Your task to perform on an android device: Open the phone app and click the voicemail tab. Image 0: 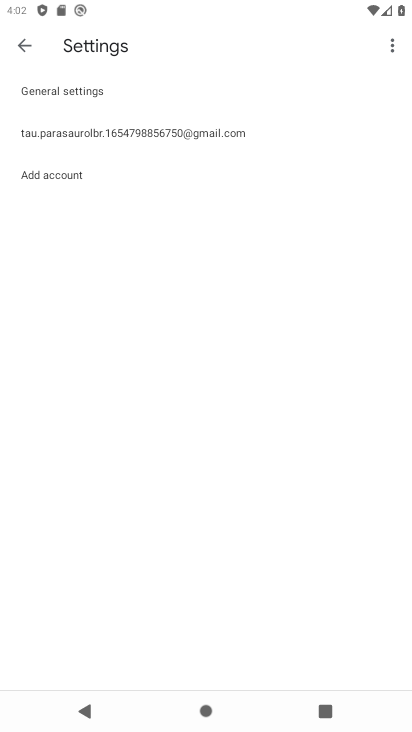
Step 0: press home button
Your task to perform on an android device: Open the phone app and click the voicemail tab. Image 1: 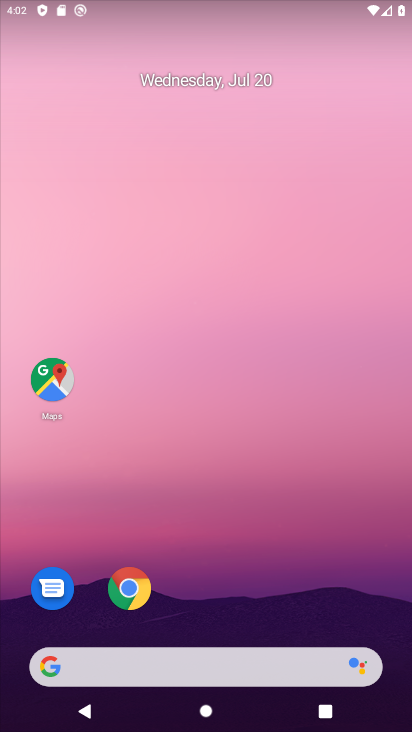
Step 1: drag from (221, 625) to (258, 83)
Your task to perform on an android device: Open the phone app and click the voicemail tab. Image 2: 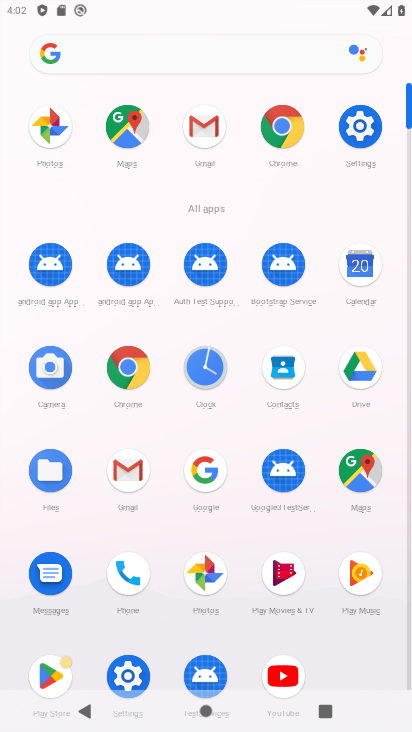
Step 2: click (119, 565)
Your task to perform on an android device: Open the phone app and click the voicemail tab. Image 3: 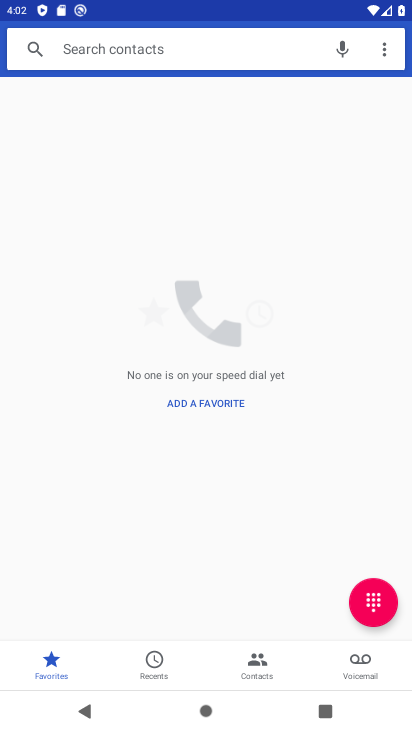
Step 3: click (367, 666)
Your task to perform on an android device: Open the phone app and click the voicemail tab. Image 4: 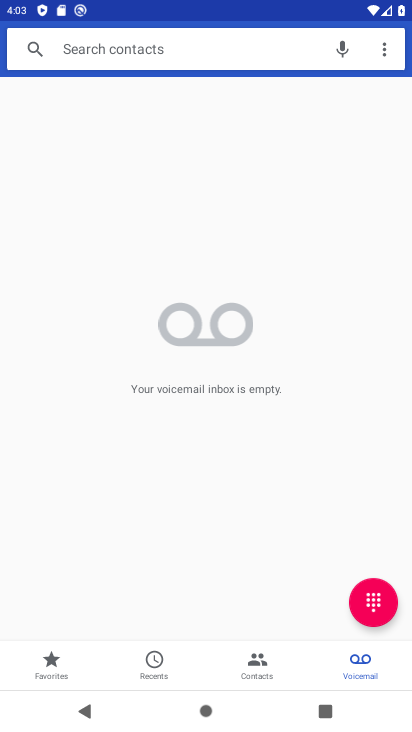
Step 4: task complete